Your task to perform on an android device: turn on location history Image 0: 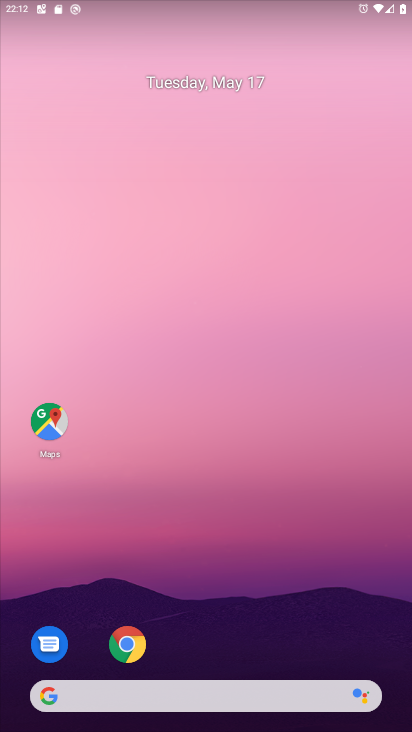
Step 0: press home button
Your task to perform on an android device: turn on location history Image 1: 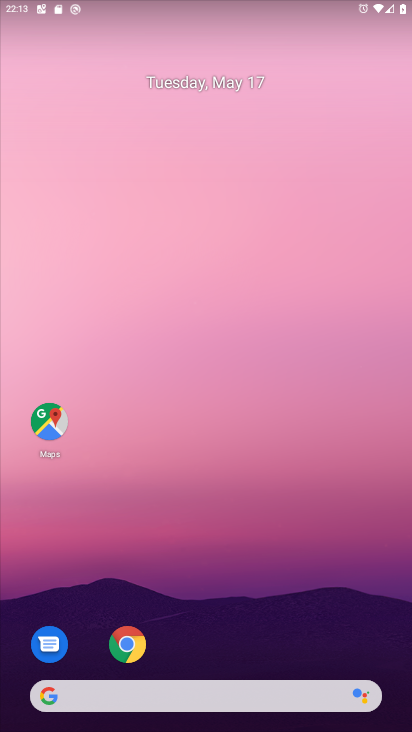
Step 1: drag from (217, 657) to (230, 65)
Your task to perform on an android device: turn on location history Image 2: 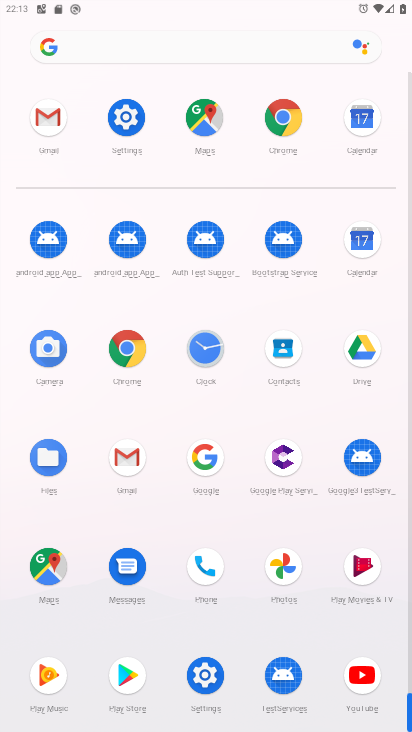
Step 2: click (121, 116)
Your task to perform on an android device: turn on location history Image 3: 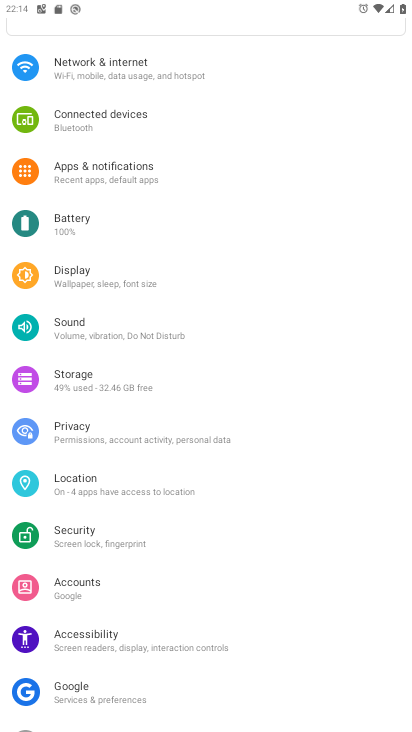
Step 3: click (106, 484)
Your task to perform on an android device: turn on location history Image 4: 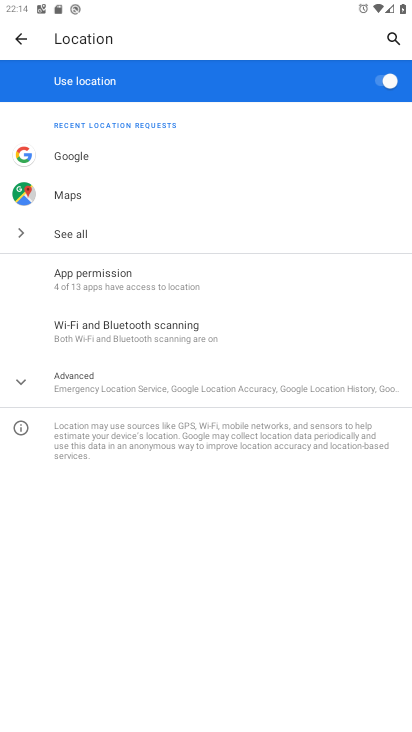
Step 4: click (97, 390)
Your task to perform on an android device: turn on location history Image 5: 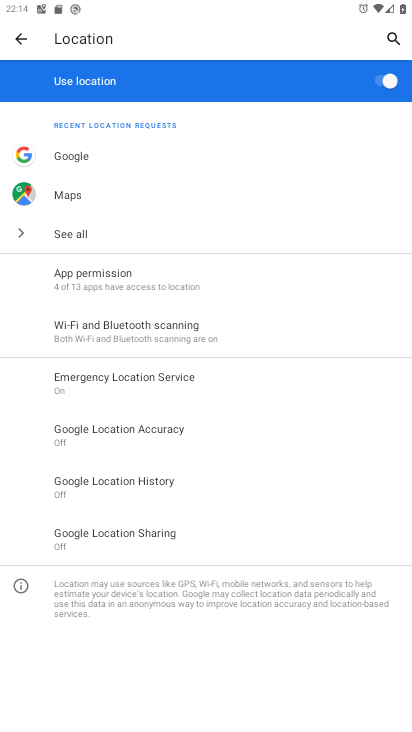
Step 5: click (163, 486)
Your task to perform on an android device: turn on location history Image 6: 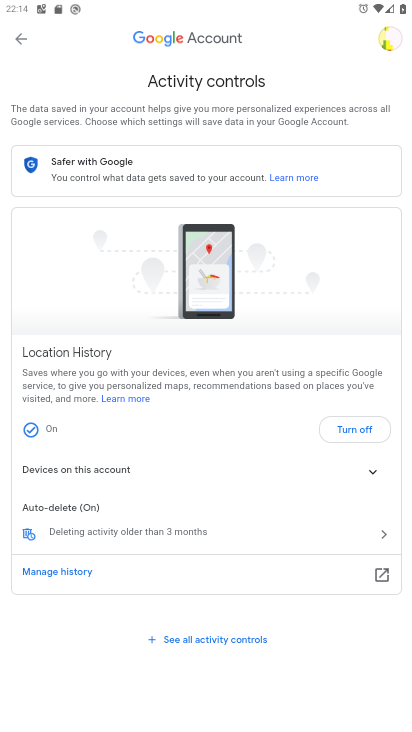
Step 6: task complete